Your task to perform on an android device: Go to network settings Image 0: 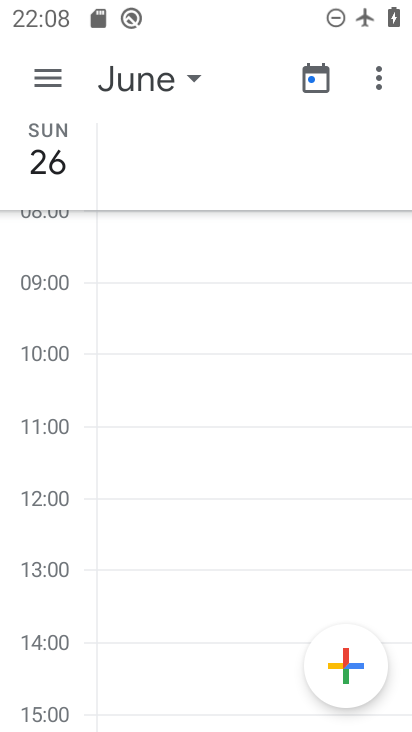
Step 0: press home button
Your task to perform on an android device: Go to network settings Image 1: 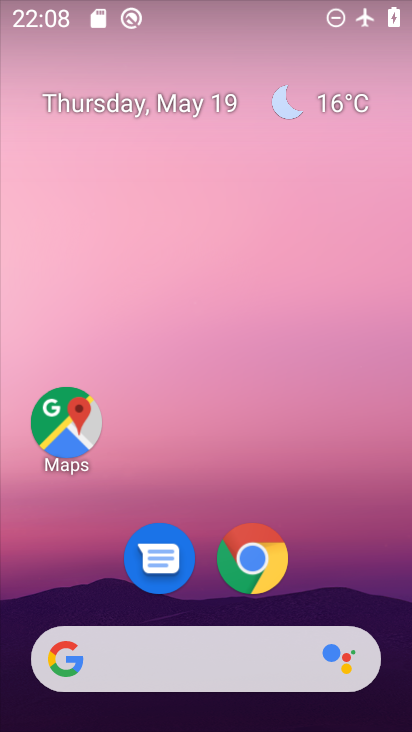
Step 1: drag from (204, 729) to (169, 55)
Your task to perform on an android device: Go to network settings Image 2: 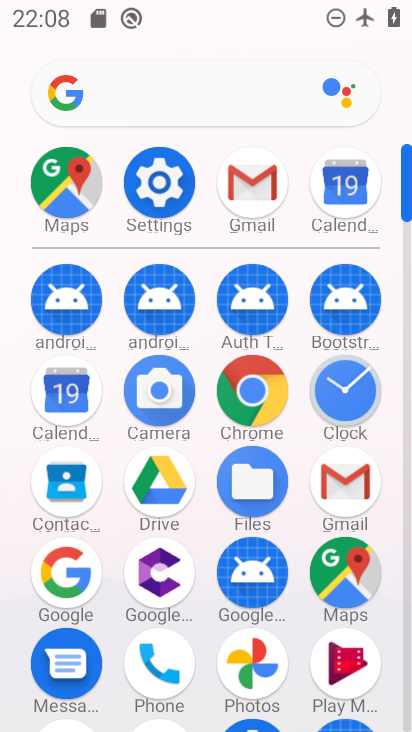
Step 2: click (157, 185)
Your task to perform on an android device: Go to network settings Image 3: 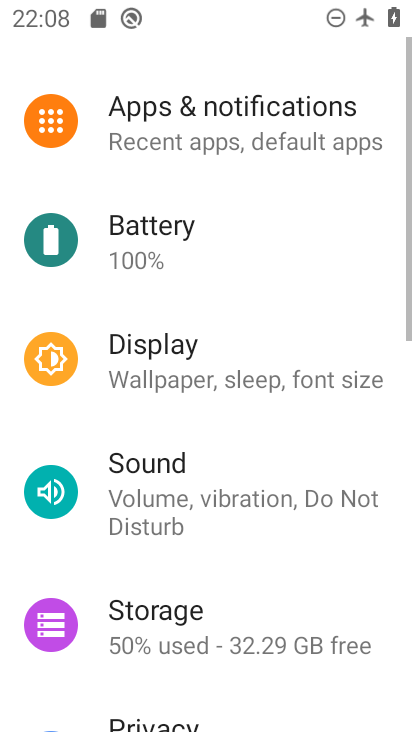
Step 3: drag from (205, 178) to (222, 595)
Your task to perform on an android device: Go to network settings Image 4: 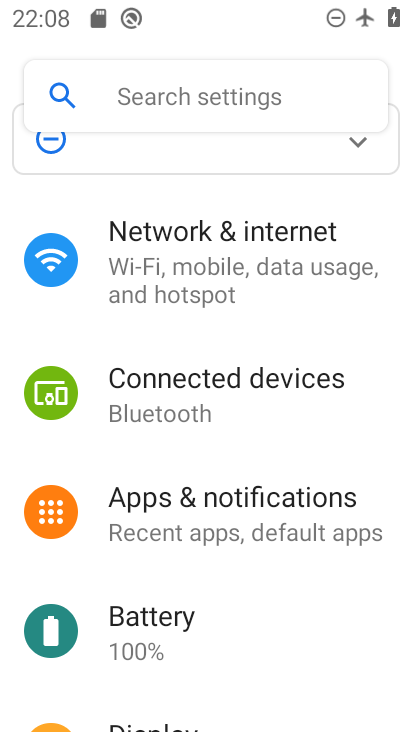
Step 4: click (227, 262)
Your task to perform on an android device: Go to network settings Image 5: 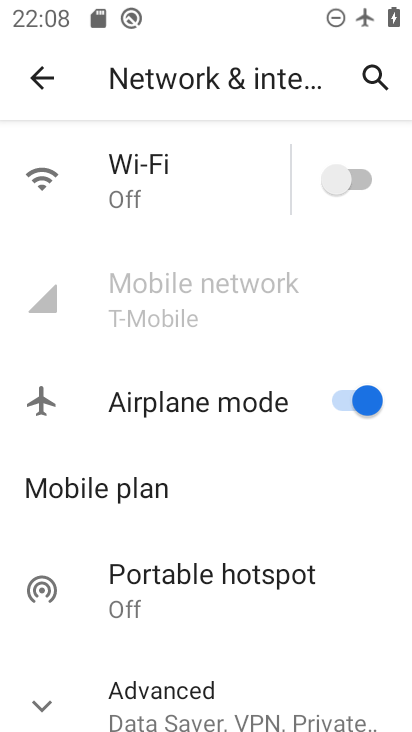
Step 5: click (346, 401)
Your task to perform on an android device: Go to network settings Image 6: 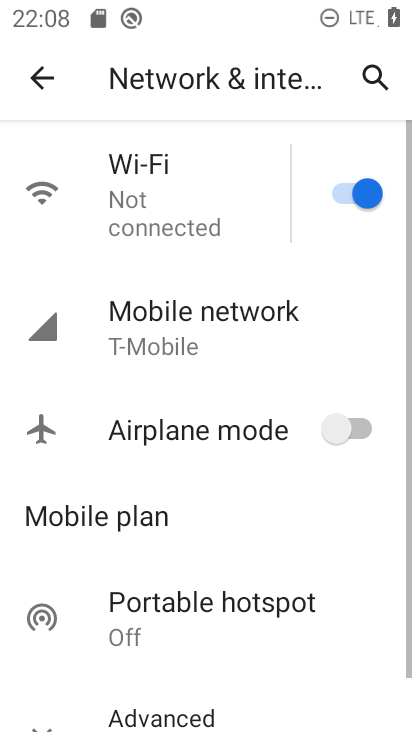
Step 6: click (167, 287)
Your task to perform on an android device: Go to network settings Image 7: 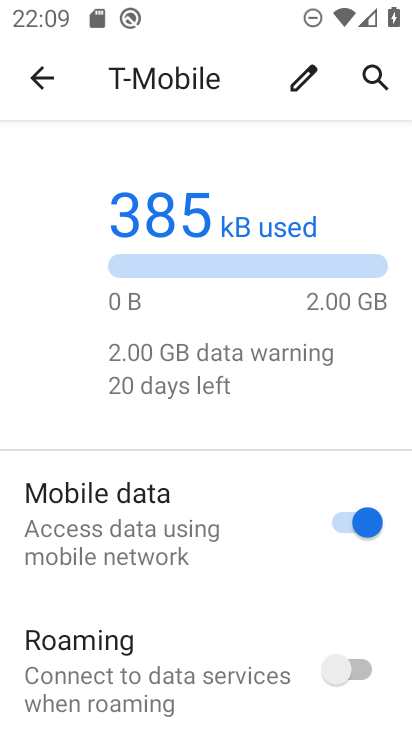
Step 7: task complete